Your task to perform on an android device: turn pop-ups off in chrome Image 0: 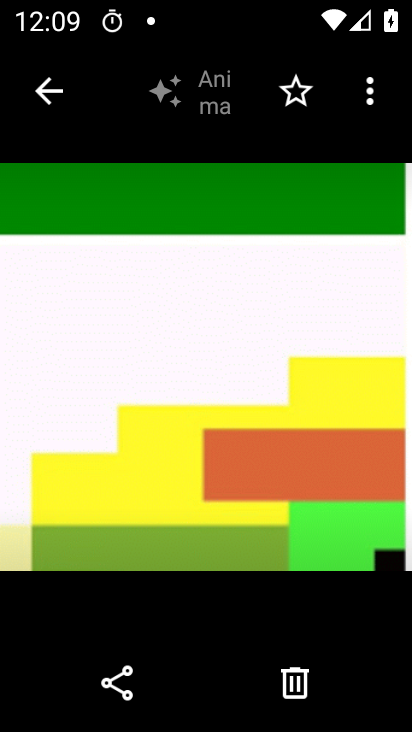
Step 0: press home button
Your task to perform on an android device: turn pop-ups off in chrome Image 1: 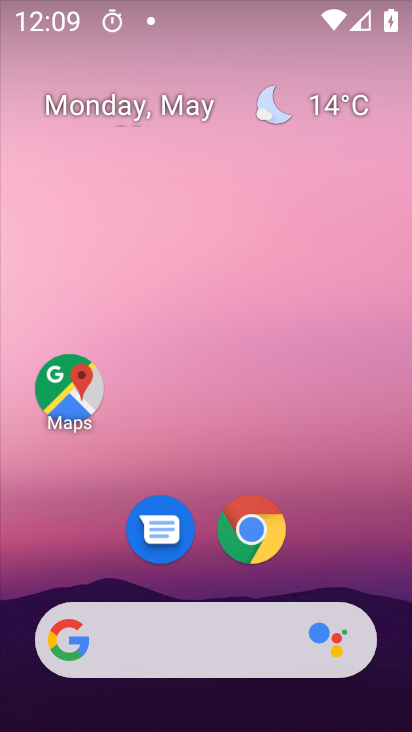
Step 1: drag from (374, 544) to (383, 196)
Your task to perform on an android device: turn pop-ups off in chrome Image 2: 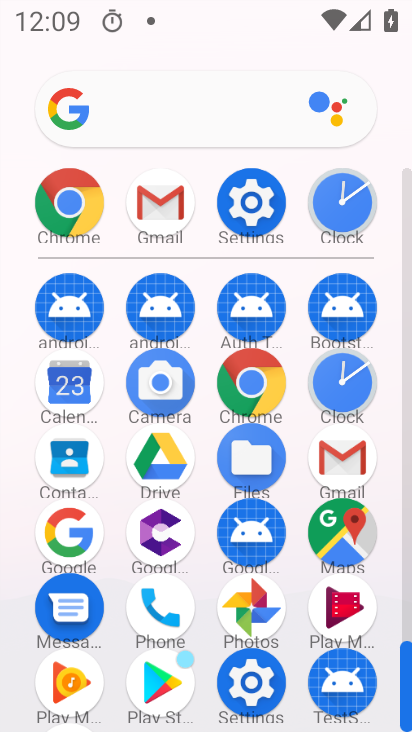
Step 2: click (271, 393)
Your task to perform on an android device: turn pop-ups off in chrome Image 3: 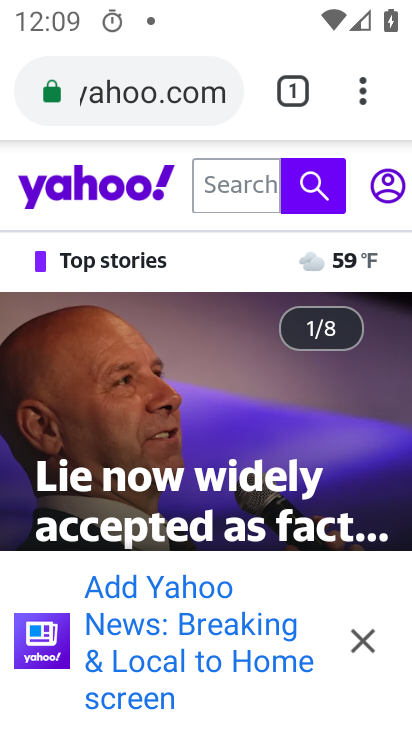
Step 3: click (361, 98)
Your task to perform on an android device: turn pop-ups off in chrome Image 4: 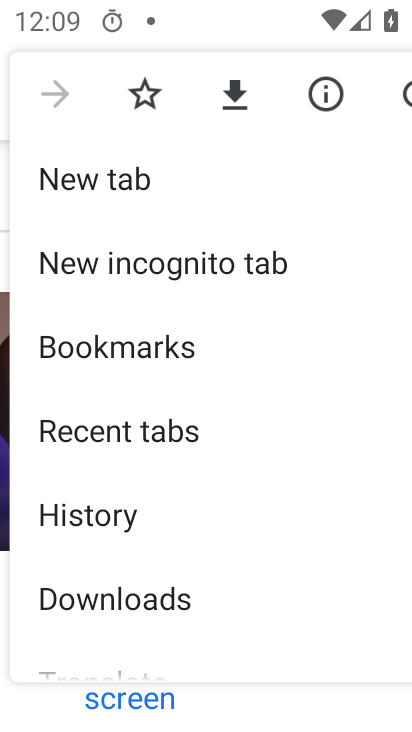
Step 4: drag from (359, 483) to (368, 396)
Your task to perform on an android device: turn pop-ups off in chrome Image 5: 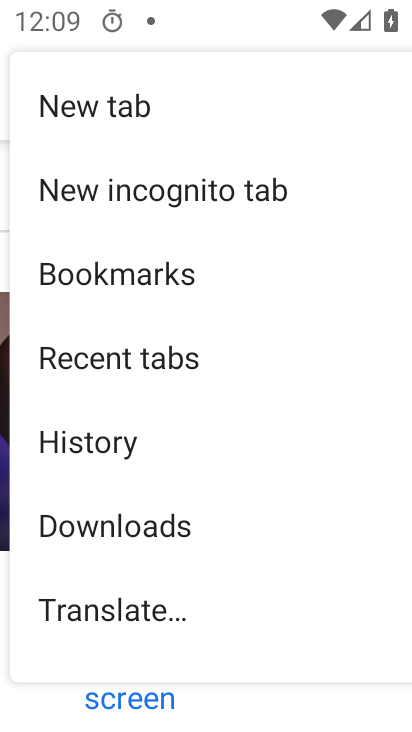
Step 5: drag from (341, 506) to (356, 426)
Your task to perform on an android device: turn pop-ups off in chrome Image 6: 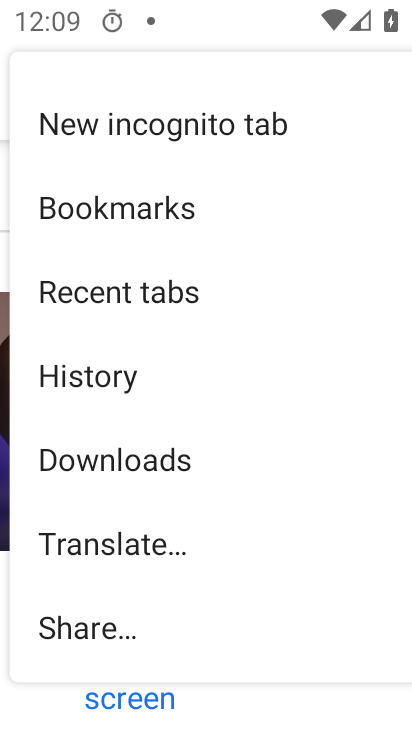
Step 6: drag from (339, 508) to (344, 429)
Your task to perform on an android device: turn pop-ups off in chrome Image 7: 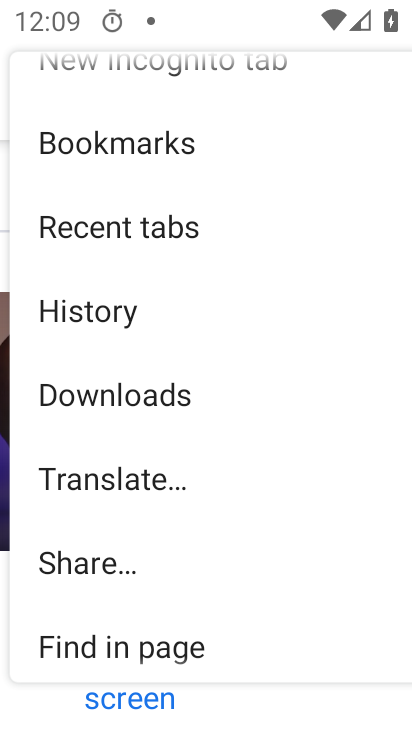
Step 7: drag from (342, 537) to (354, 441)
Your task to perform on an android device: turn pop-ups off in chrome Image 8: 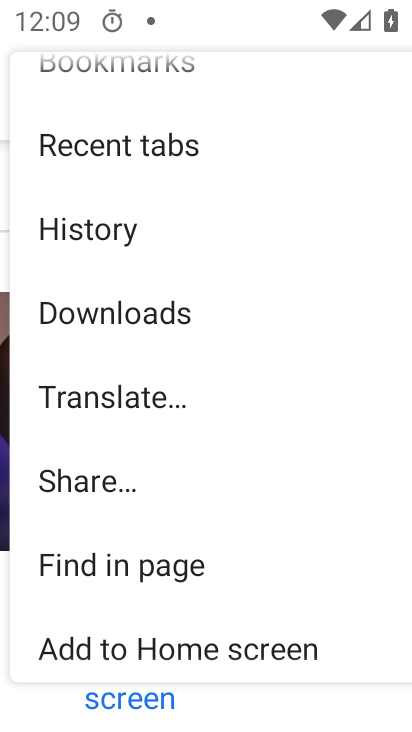
Step 8: drag from (341, 544) to (343, 450)
Your task to perform on an android device: turn pop-ups off in chrome Image 9: 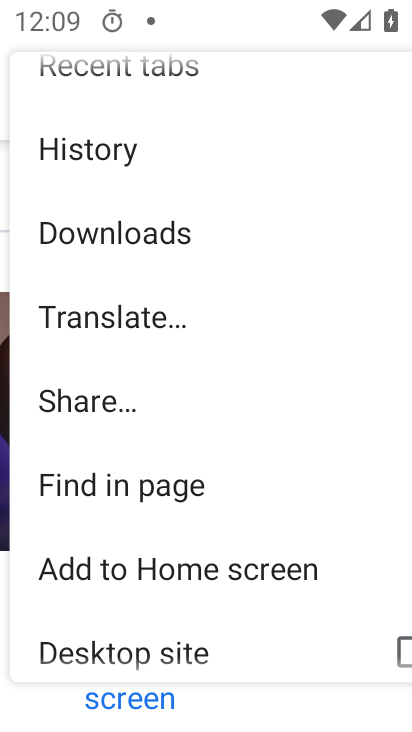
Step 9: drag from (333, 581) to (340, 462)
Your task to perform on an android device: turn pop-ups off in chrome Image 10: 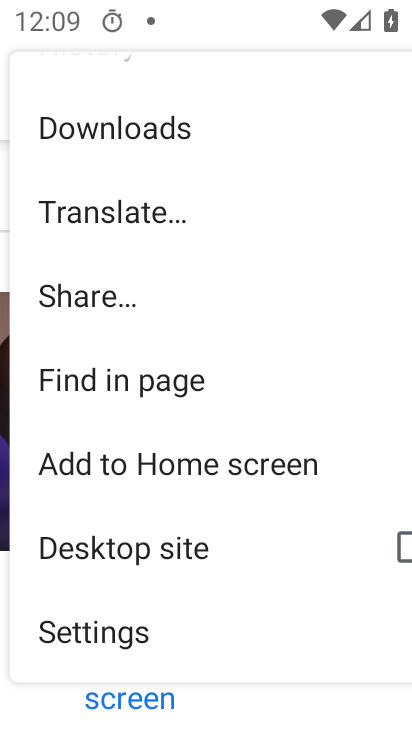
Step 10: drag from (314, 587) to (323, 496)
Your task to perform on an android device: turn pop-ups off in chrome Image 11: 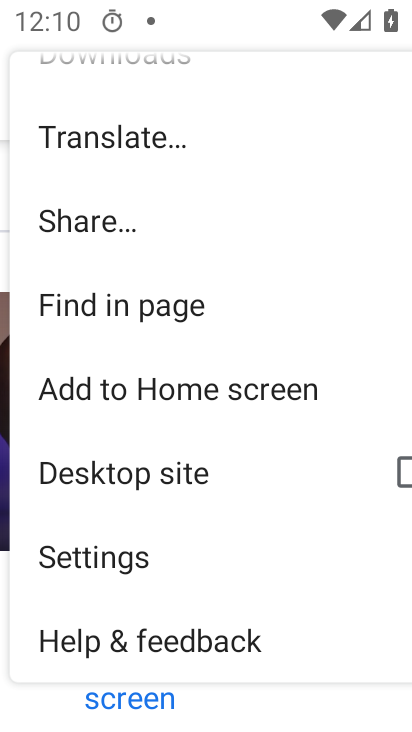
Step 11: drag from (304, 575) to (311, 494)
Your task to perform on an android device: turn pop-ups off in chrome Image 12: 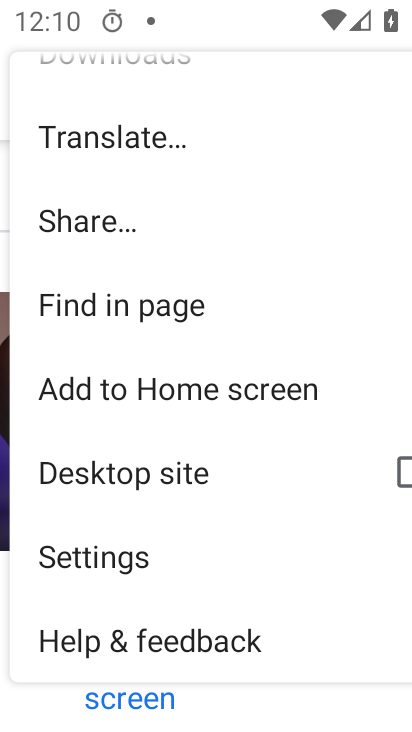
Step 12: click (219, 566)
Your task to perform on an android device: turn pop-ups off in chrome Image 13: 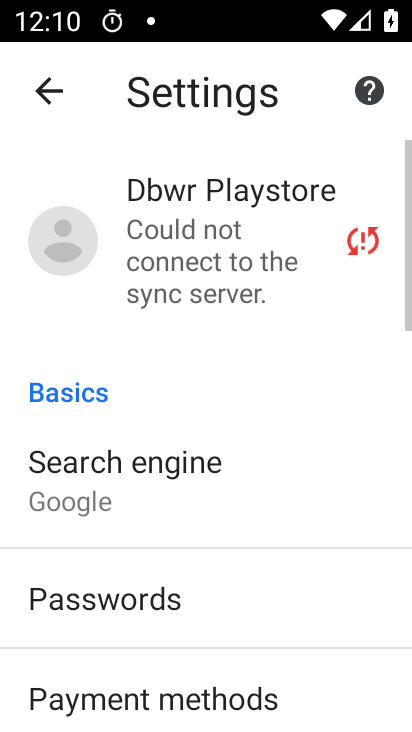
Step 13: drag from (307, 603) to (316, 510)
Your task to perform on an android device: turn pop-ups off in chrome Image 14: 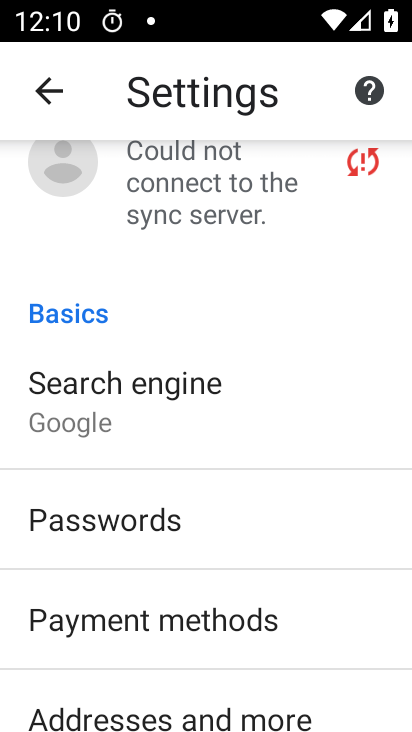
Step 14: drag from (324, 625) to (326, 539)
Your task to perform on an android device: turn pop-ups off in chrome Image 15: 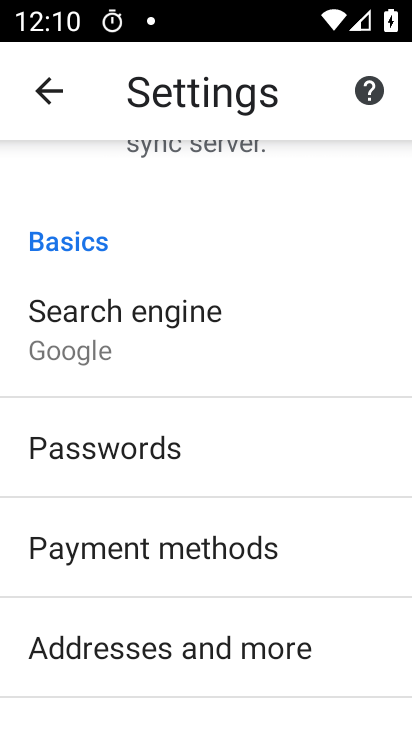
Step 15: drag from (339, 638) to (351, 554)
Your task to perform on an android device: turn pop-ups off in chrome Image 16: 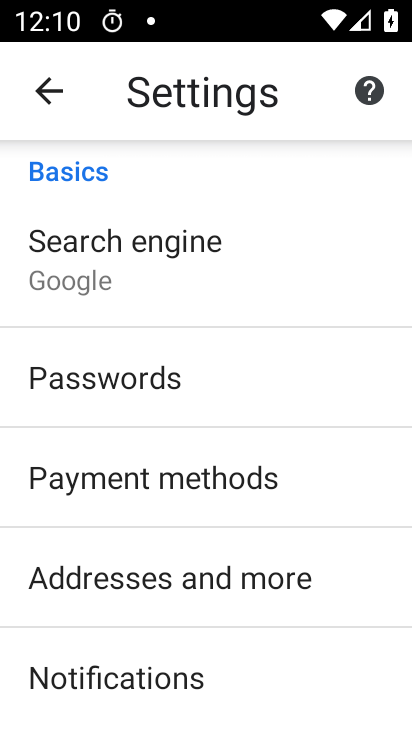
Step 16: drag from (340, 653) to (355, 563)
Your task to perform on an android device: turn pop-ups off in chrome Image 17: 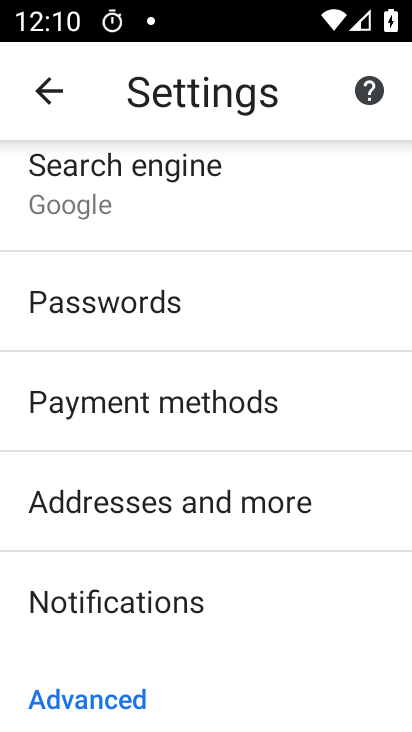
Step 17: drag from (349, 650) to (355, 565)
Your task to perform on an android device: turn pop-ups off in chrome Image 18: 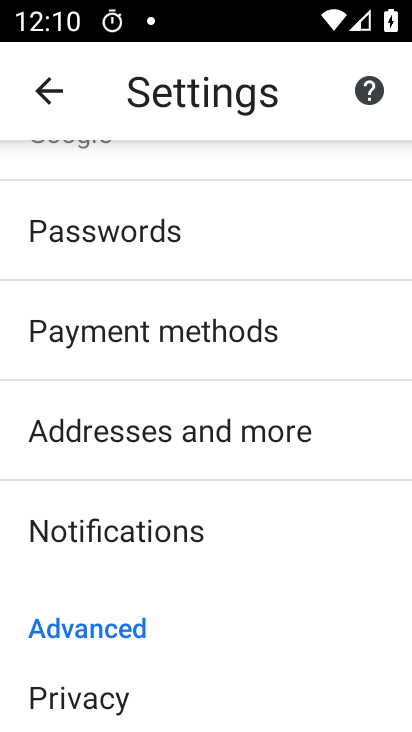
Step 18: drag from (357, 652) to (362, 542)
Your task to perform on an android device: turn pop-ups off in chrome Image 19: 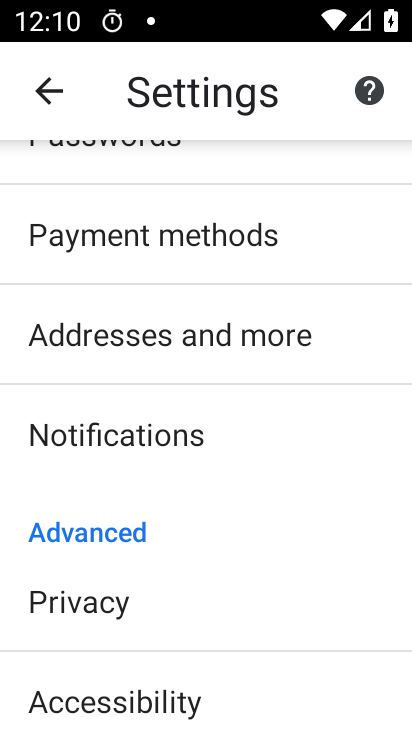
Step 19: drag from (333, 660) to (342, 564)
Your task to perform on an android device: turn pop-ups off in chrome Image 20: 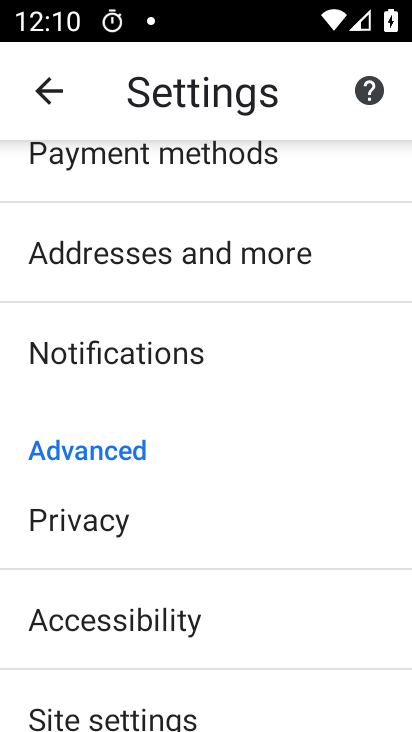
Step 20: drag from (332, 674) to (330, 572)
Your task to perform on an android device: turn pop-ups off in chrome Image 21: 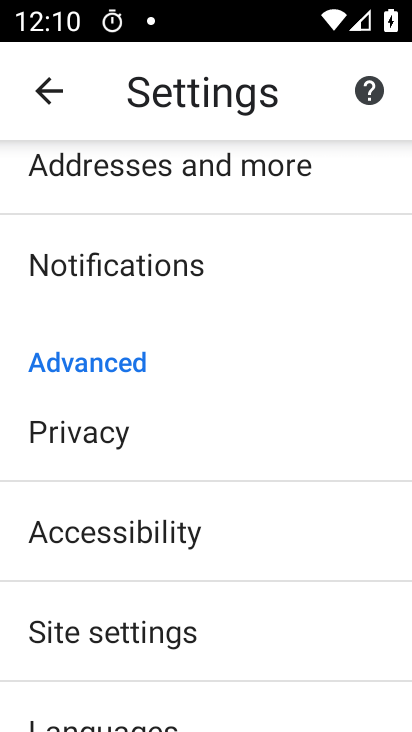
Step 21: drag from (318, 684) to (323, 574)
Your task to perform on an android device: turn pop-ups off in chrome Image 22: 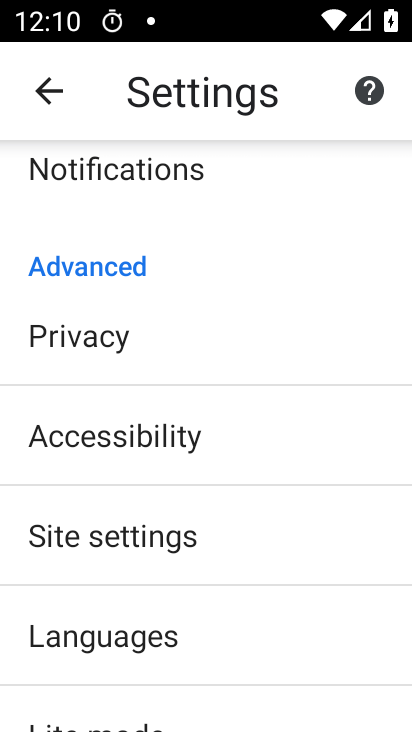
Step 22: click (316, 565)
Your task to perform on an android device: turn pop-ups off in chrome Image 23: 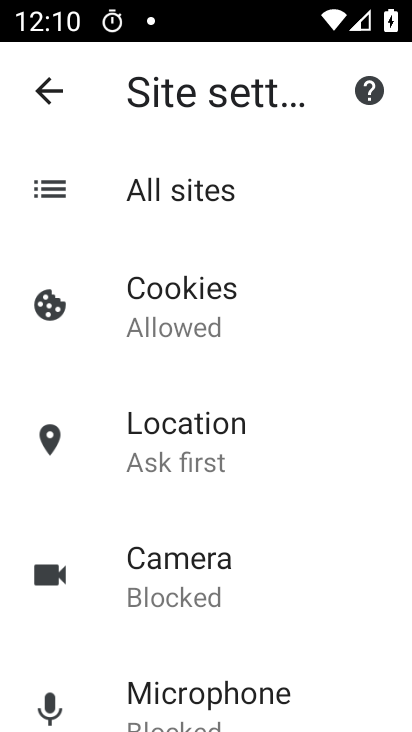
Step 23: drag from (368, 616) to (367, 537)
Your task to perform on an android device: turn pop-ups off in chrome Image 24: 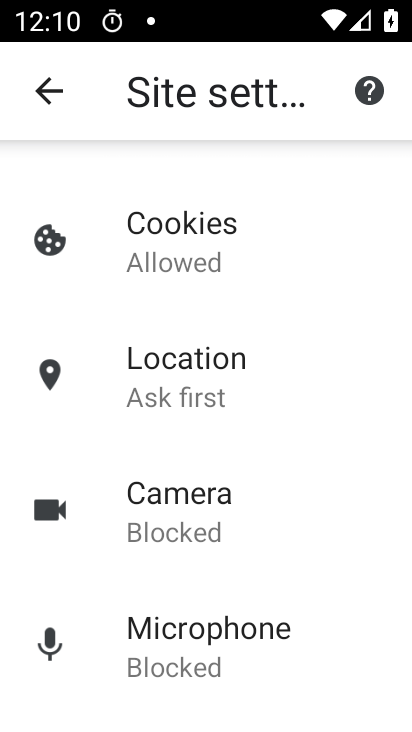
Step 24: drag from (351, 656) to (360, 579)
Your task to perform on an android device: turn pop-ups off in chrome Image 25: 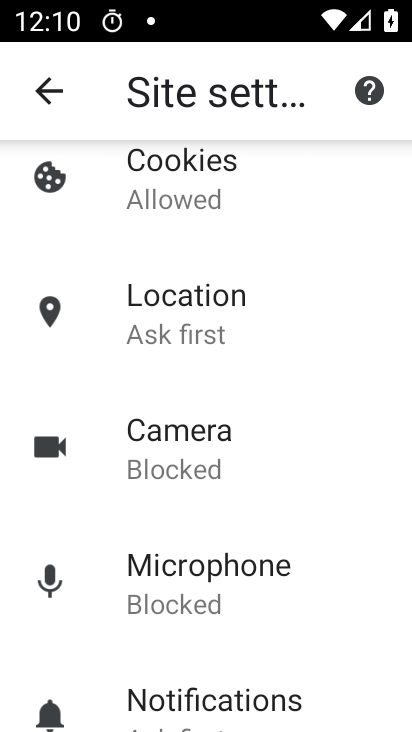
Step 25: drag from (366, 655) to (356, 574)
Your task to perform on an android device: turn pop-ups off in chrome Image 26: 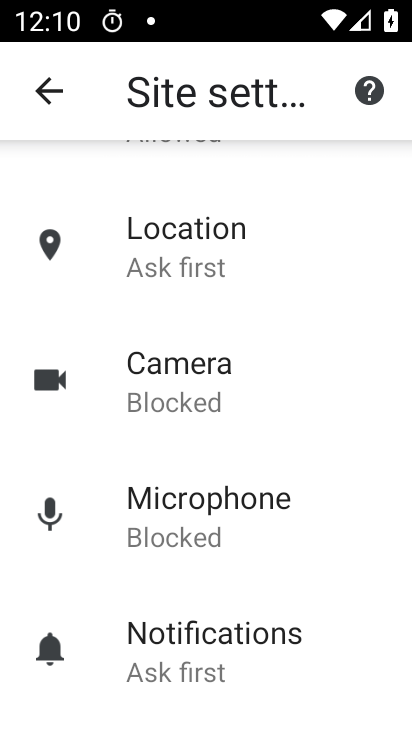
Step 26: drag from (357, 670) to (361, 594)
Your task to perform on an android device: turn pop-ups off in chrome Image 27: 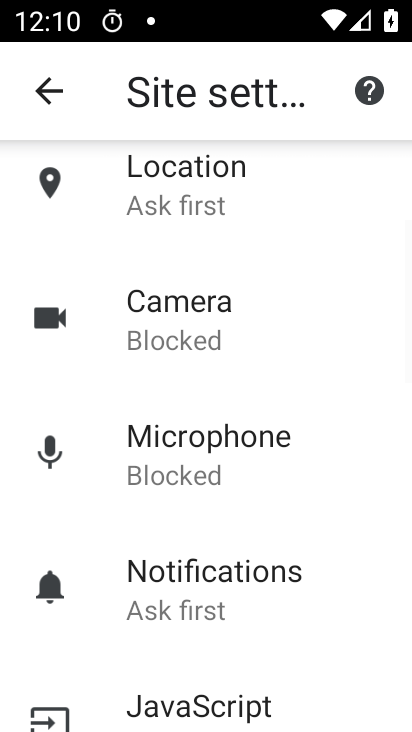
Step 27: drag from (352, 663) to (352, 554)
Your task to perform on an android device: turn pop-ups off in chrome Image 28: 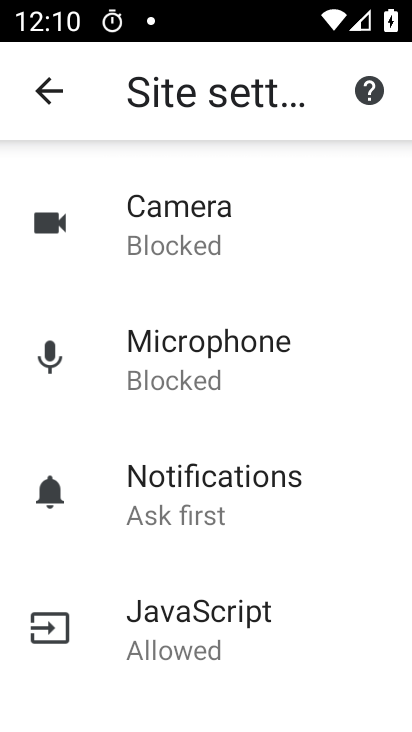
Step 28: drag from (347, 578) to (357, 509)
Your task to perform on an android device: turn pop-ups off in chrome Image 29: 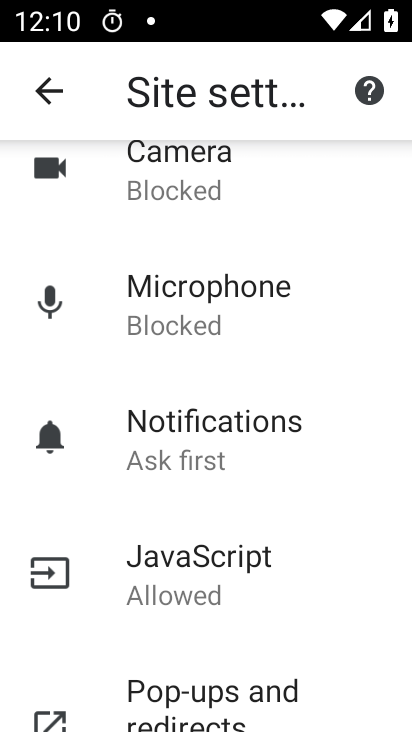
Step 29: drag from (366, 656) to (366, 545)
Your task to perform on an android device: turn pop-ups off in chrome Image 30: 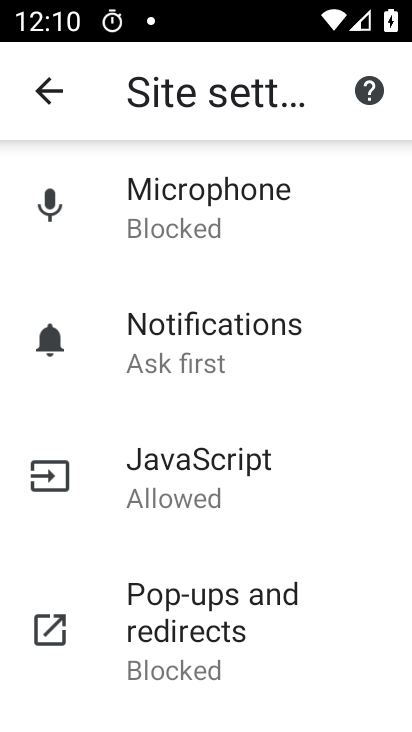
Step 30: click (252, 621)
Your task to perform on an android device: turn pop-ups off in chrome Image 31: 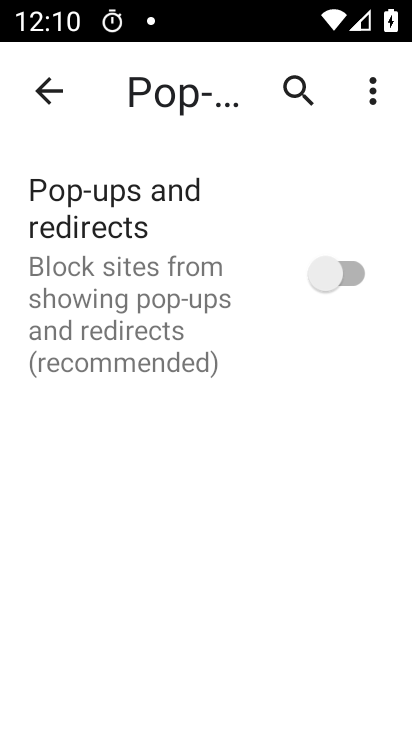
Step 31: task complete